Your task to perform on an android device: toggle pop-ups in chrome Image 0: 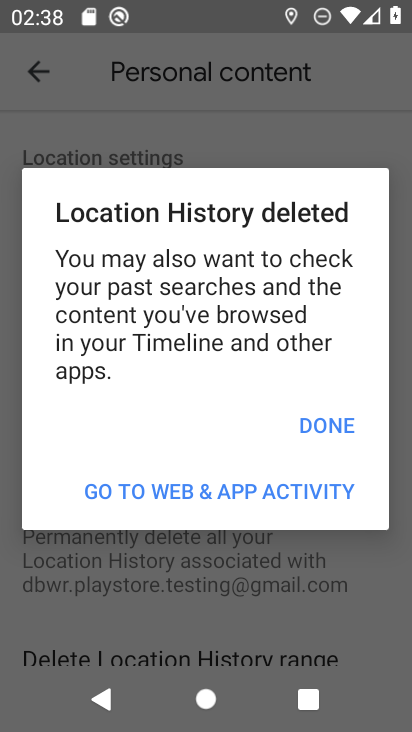
Step 0: press home button
Your task to perform on an android device: toggle pop-ups in chrome Image 1: 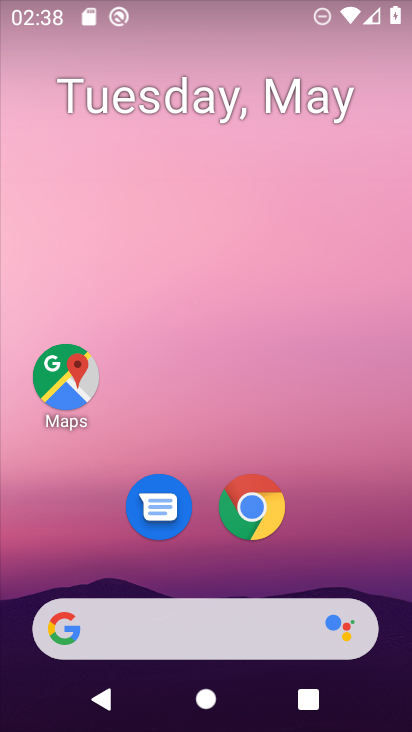
Step 1: click (236, 492)
Your task to perform on an android device: toggle pop-ups in chrome Image 2: 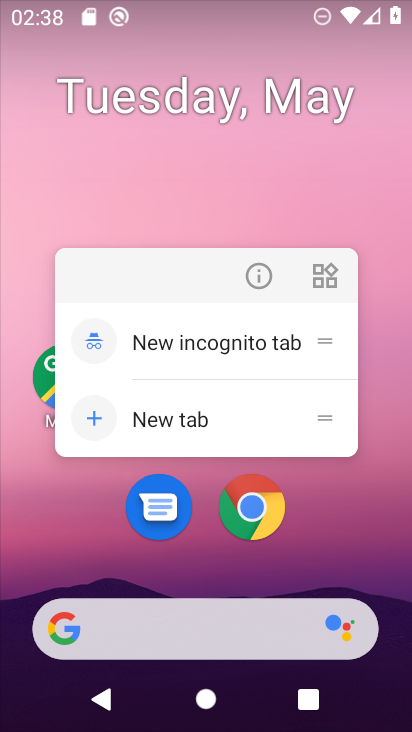
Step 2: click (266, 491)
Your task to perform on an android device: toggle pop-ups in chrome Image 3: 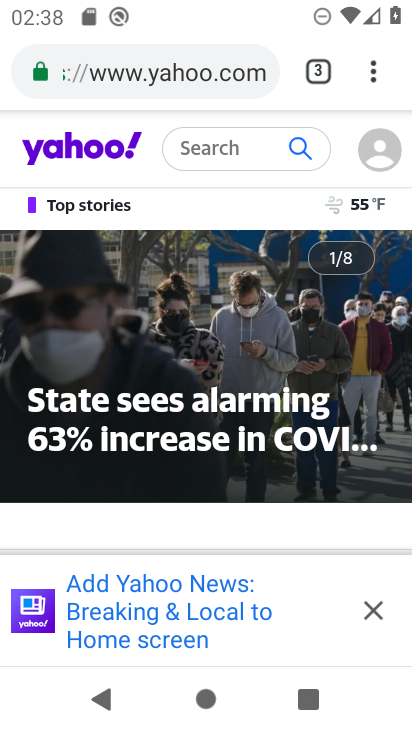
Step 3: drag from (370, 64) to (155, 513)
Your task to perform on an android device: toggle pop-ups in chrome Image 4: 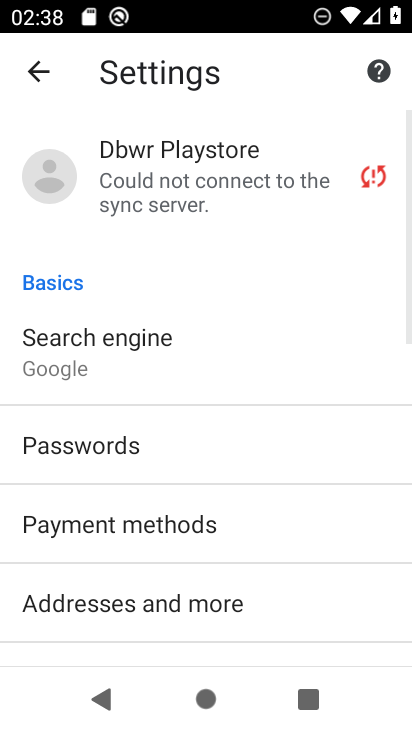
Step 4: drag from (224, 523) to (227, 202)
Your task to perform on an android device: toggle pop-ups in chrome Image 5: 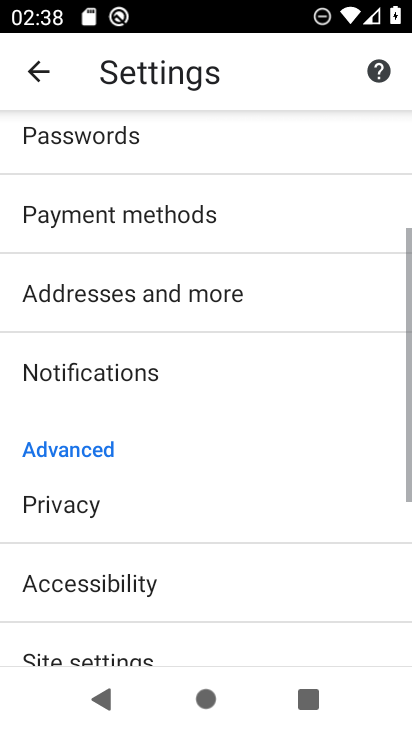
Step 5: drag from (241, 477) to (225, 259)
Your task to perform on an android device: toggle pop-ups in chrome Image 6: 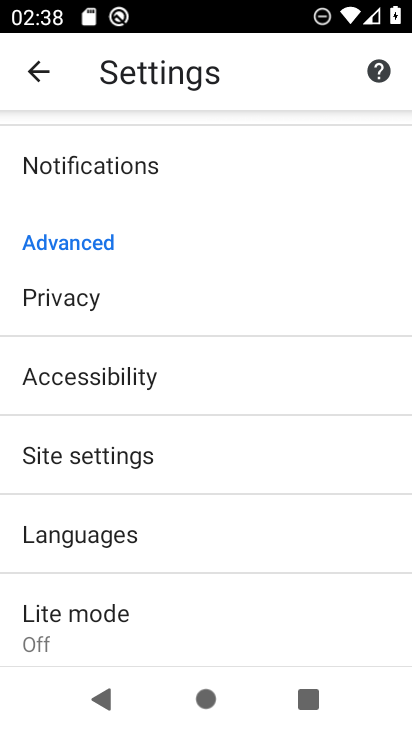
Step 6: click (154, 468)
Your task to perform on an android device: toggle pop-ups in chrome Image 7: 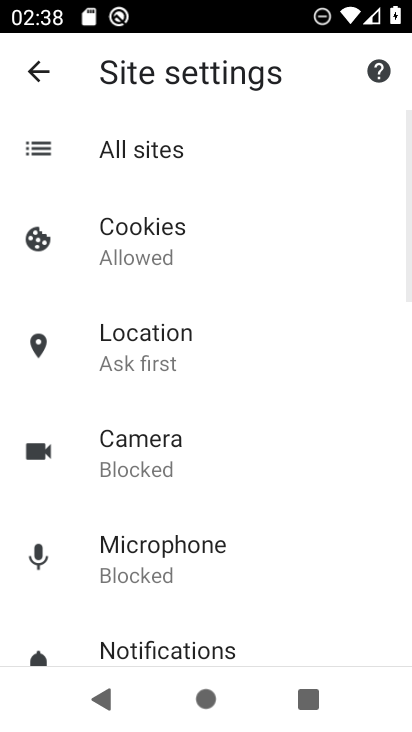
Step 7: drag from (203, 577) to (160, 301)
Your task to perform on an android device: toggle pop-ups in chrome Image 8: 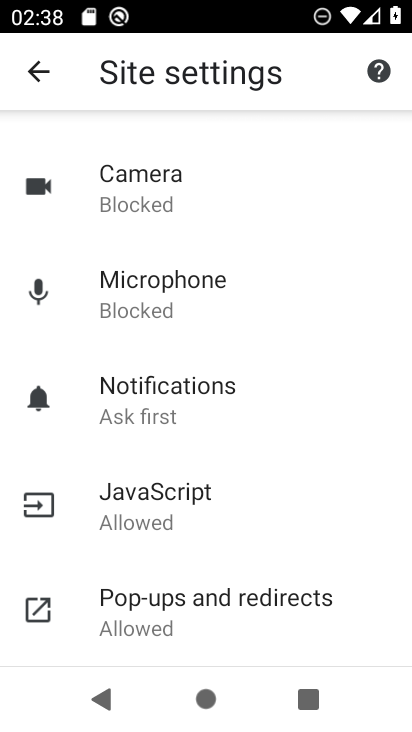
Step 8: drag from (195, 580) to (206, 407)
Your task to perform on an android device: toggle pop-ups in chrome Image 9: 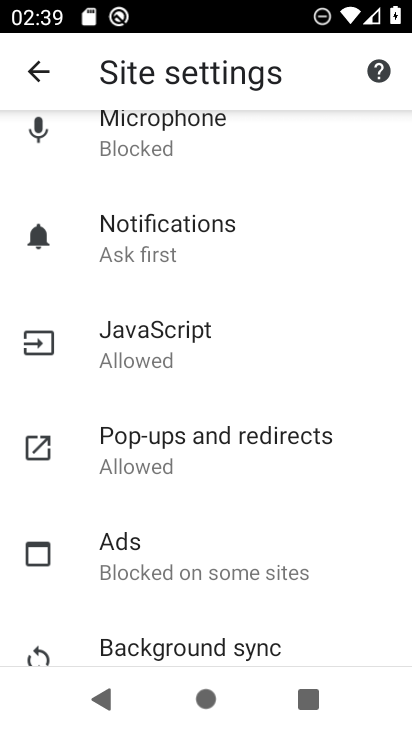
Step 9: click (202, 427)
Your task to perform on an android device: toggle pop-ups in chrome Image 10: 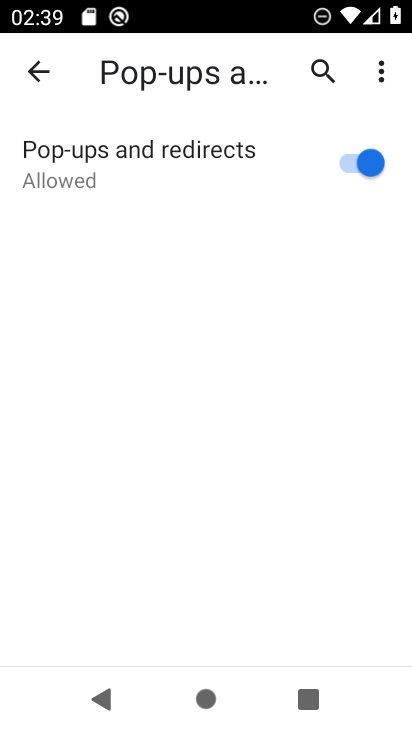
Step 10: task complete